Your task to perform on an android device: Open internet settings Image 0: 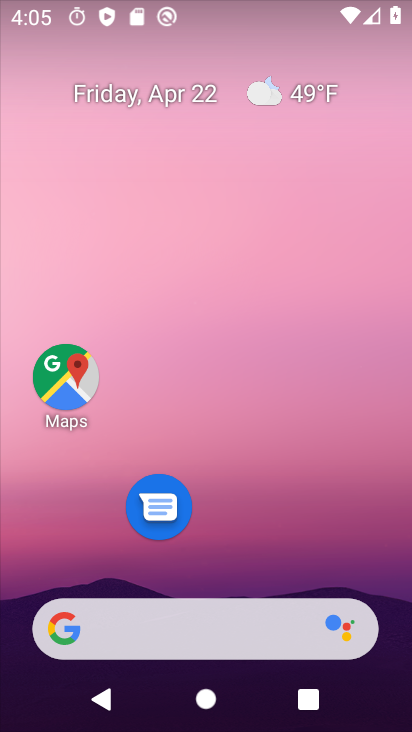
Step 0: drag from (211, 422) to (258, 78)
Your task to perform on an android device: Open internet settings Image 1: 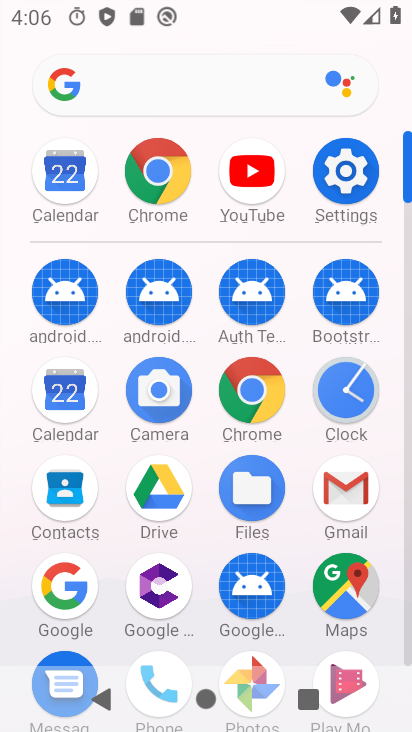
Step 1: click (337, 154)
Your task to perform on an android device: Open internet settings Image 2: 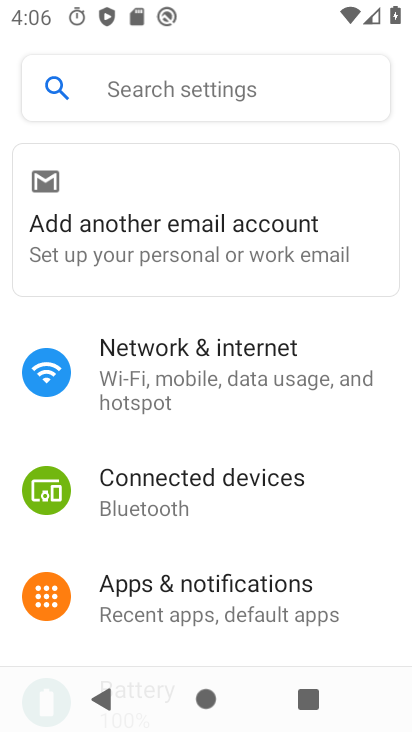
Step 2: click (239, 358)
Your task to perform on an android device: Open internet settings Image 3: 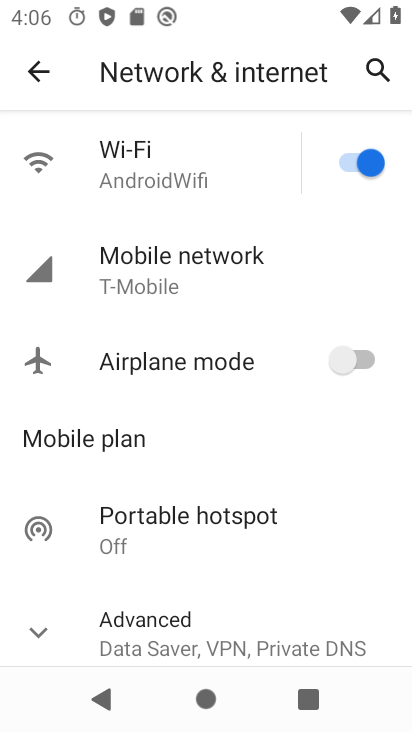
Step 3: task complete